Your task to perform on an android device: Open the phone app and click the voicemail tab. Image 0: 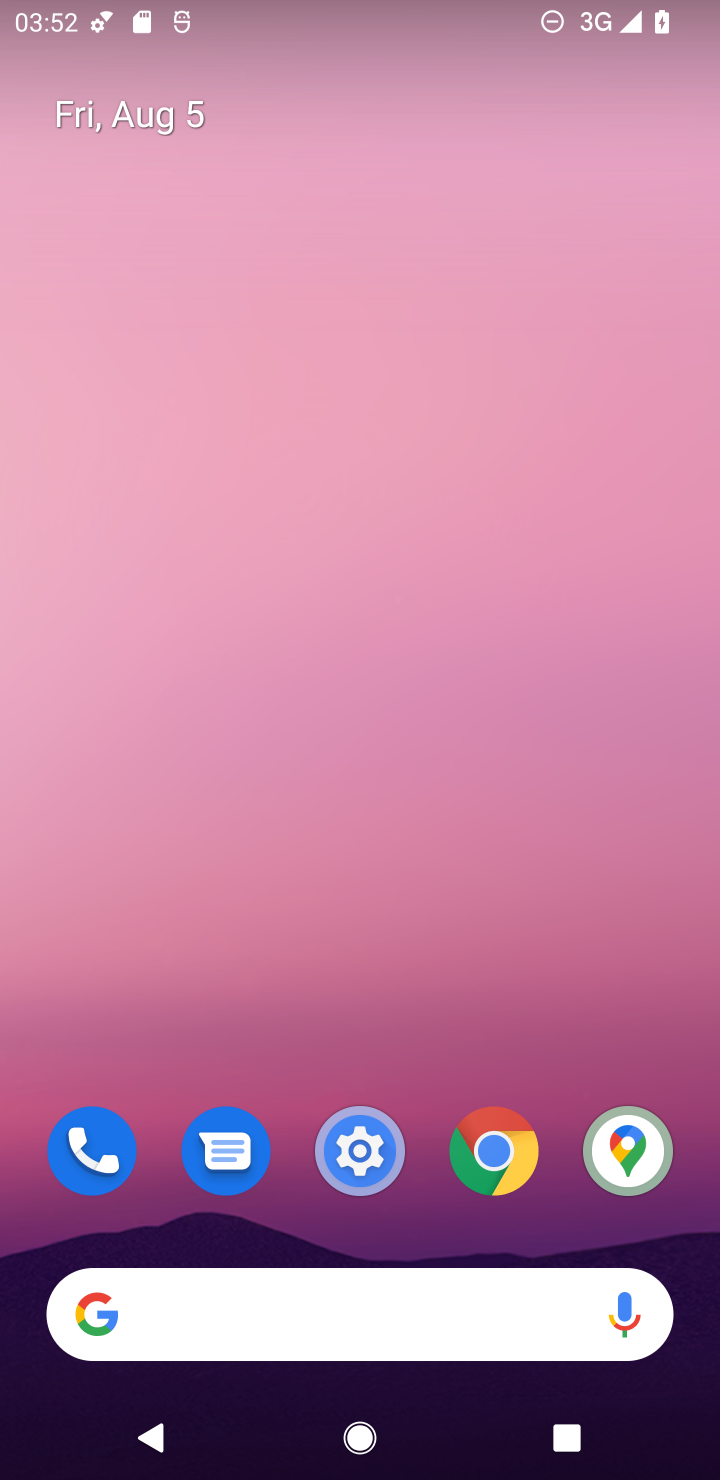
Step 0: click (104, 1148)
Your task to perform on an android device: Open the phone app and click the voicemail tab. Image 1: 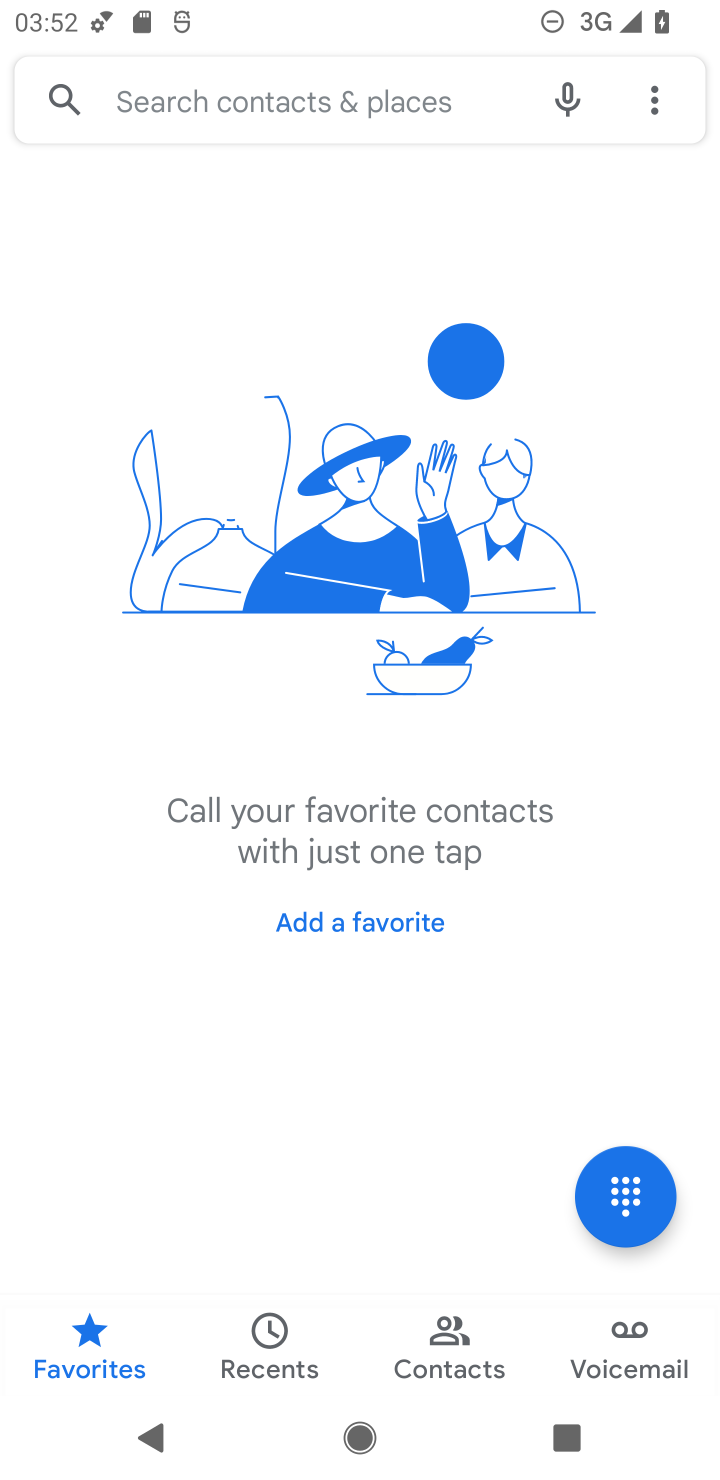
Step 1: click (635, 1361)
Your task to perform on an android device: Open the phone app and click the voicemail tab. Image 2: 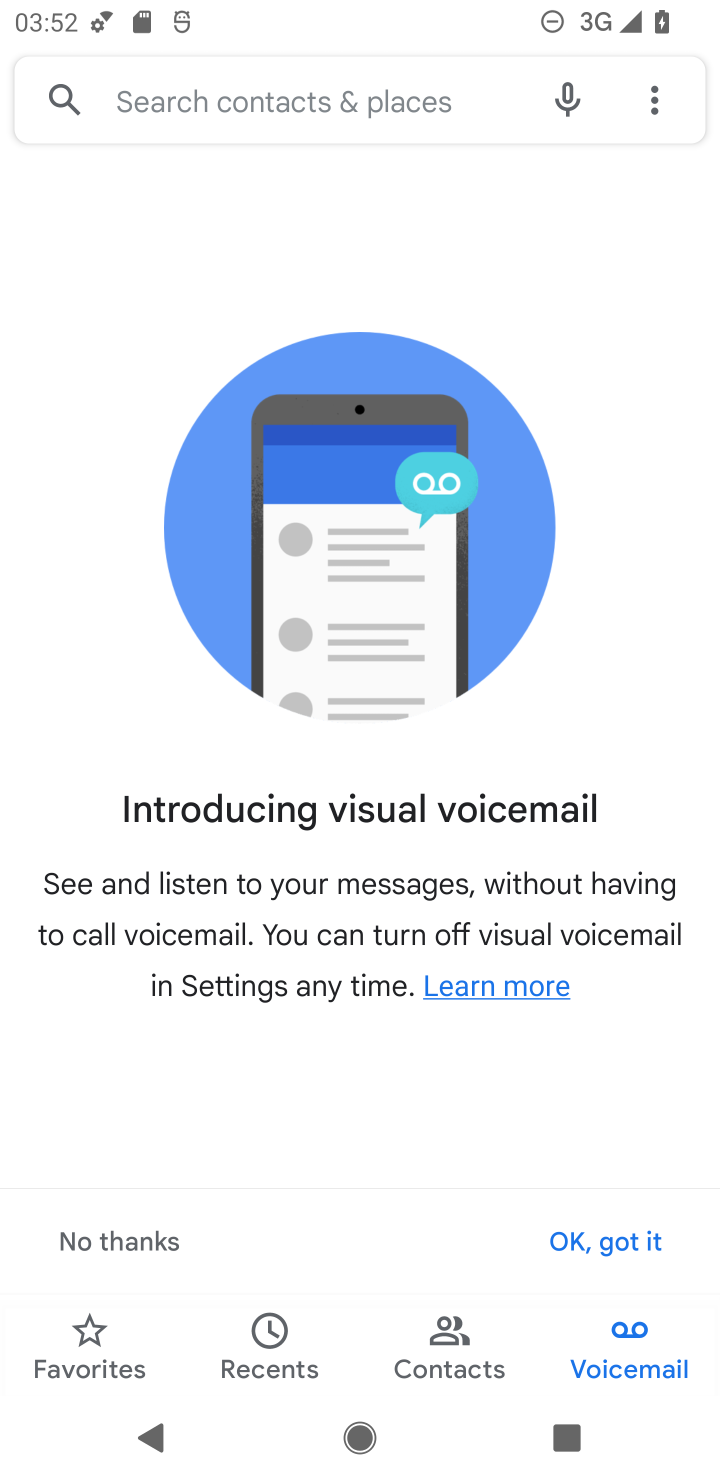
Step 2: task complete